Your task to perform on an android device: toggle javascript in the chrome app Image 0: 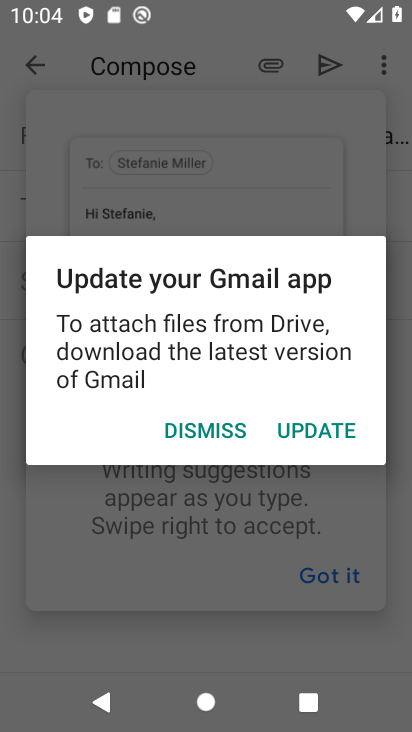
Step 0: press home button
Your task to perform on an android device: toggle javascript in the chrome app Image 1: 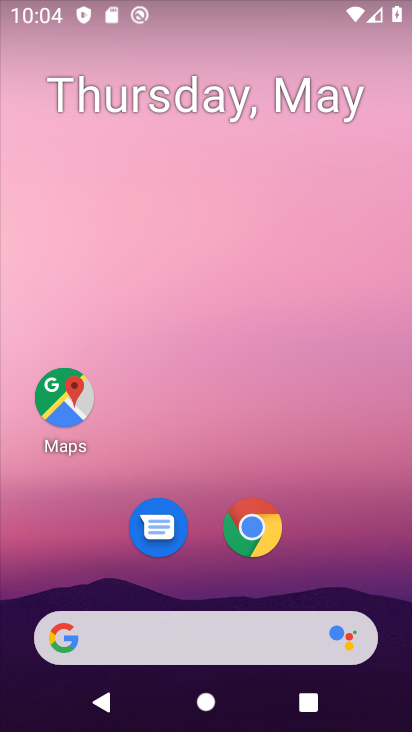
Step 1: click (244, 526)
Your task to perform on an android device: toggle javascript in the chrome app Image 2: 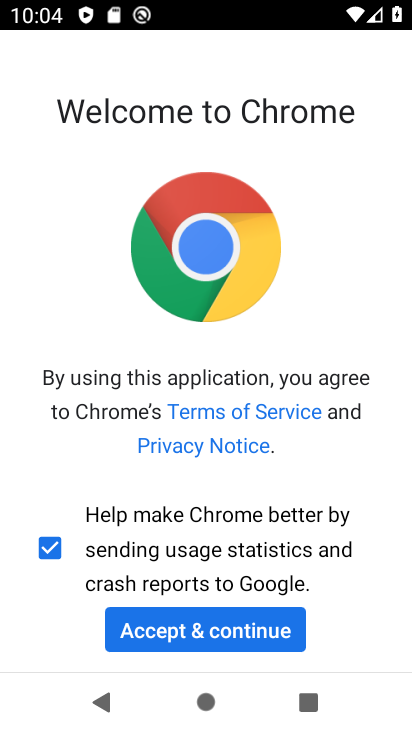
Step 2: click (219, 646)
Your task to perform on an android device: toggle javascript in the chrome app Image 3: 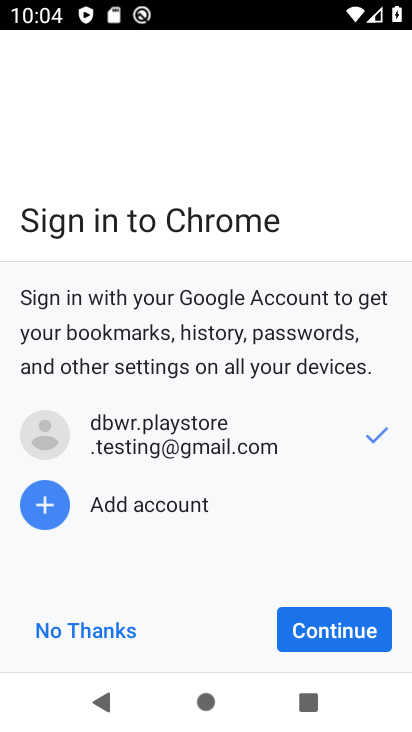
Step 3: click (324, 629)
Your task to perform on an android device: toggle javascript in the chrome app Image 4: 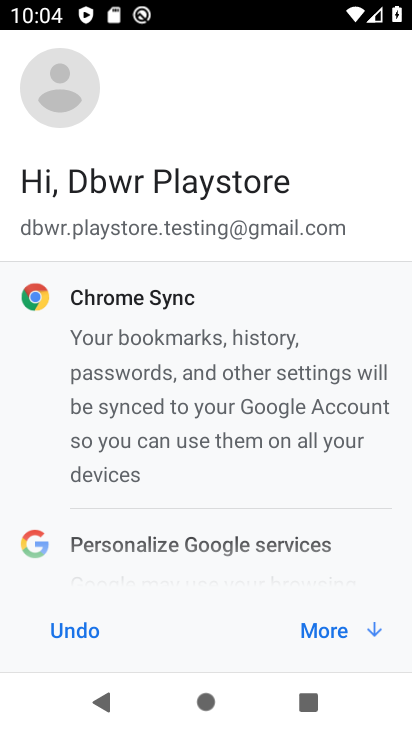
Step 4: click (335, 629)
Your task to perform on an android device: toggle javascript in the chrome app Image 5: 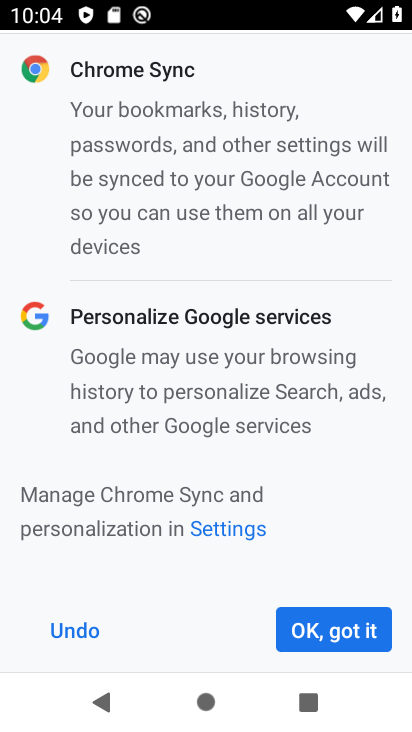
Step 5: click (351, 630)
Your task to perform on an android device: toggle javascript in the chrome app Image 6: 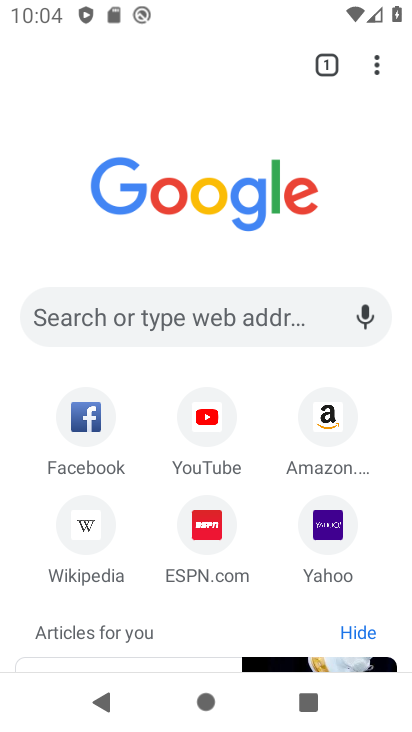
Step 6: click (374, 64)
Your task to perform on an android device: toggle javascript in the chrome app Image 7: 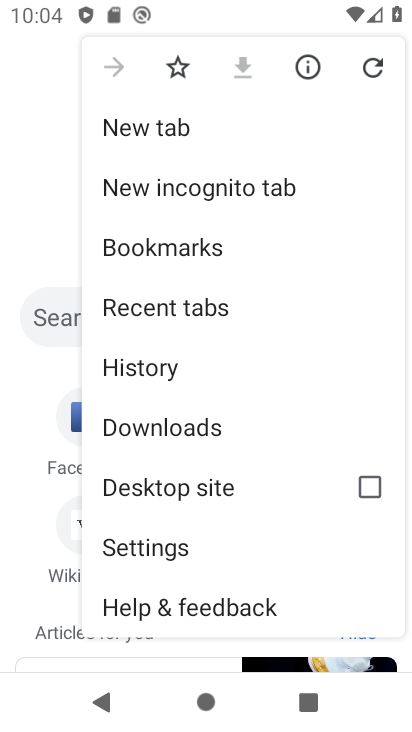
Step 7: click (150, 547)
Your task to perform on an android device: toggle javascript in the chrome app Image 8: 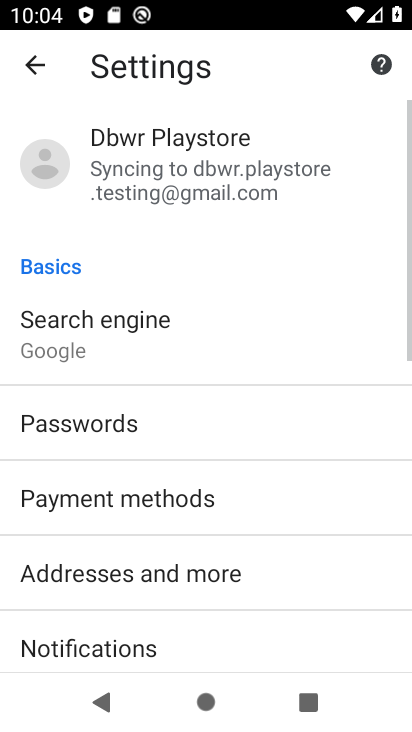
Step 8: drag from (264, 552) to (210, 166)
Your task to perform on an android device: toggle javascript in the chrome app Image 9: 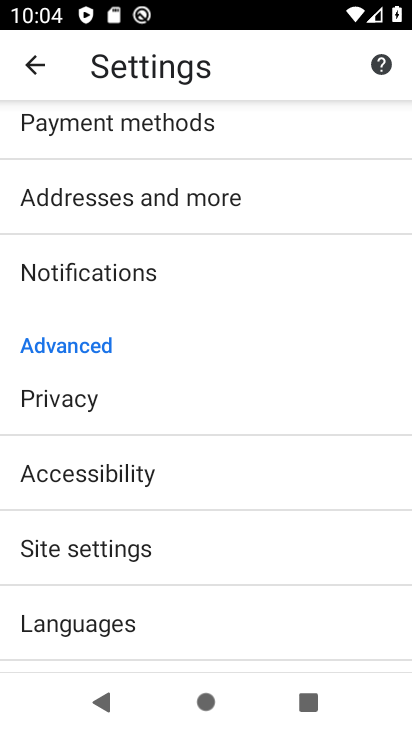
Step 9: drag from (195, 578) to (183, 304)
Your task to perform on an android device: toggle javascript in the chrome app Image 10: 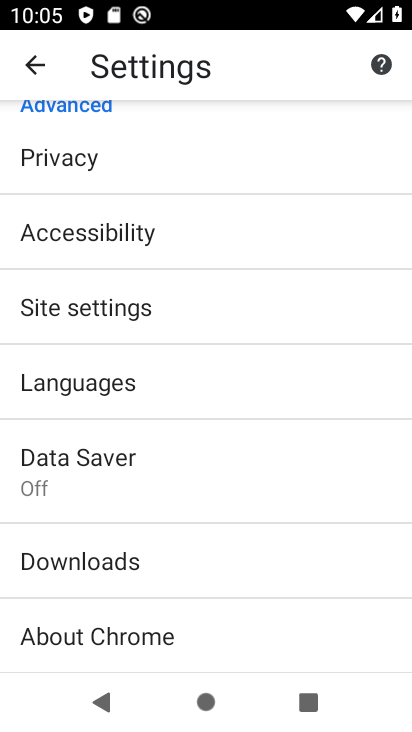
Step 10: drag from (214, 519) to (154, 256)
Your task to perform on an android device: toggle javascript in the chrome app Image 11: 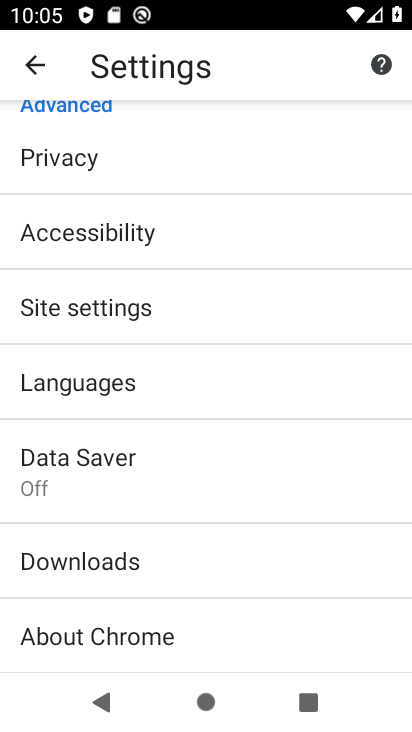
Step 11: drag from (220, 569) to (211, 376)
Your task to perform on an android device: toggle javascript in the chrome app Image 12: 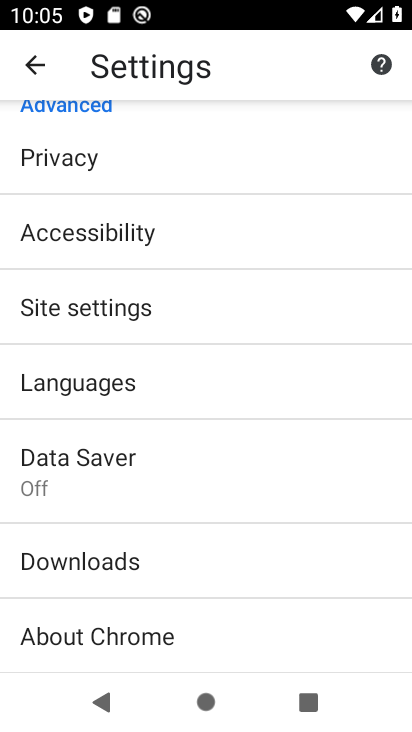
Step 12: click (116, 295)
Your task to perform on an android device: toggle javascript in the chrome app Image 13: 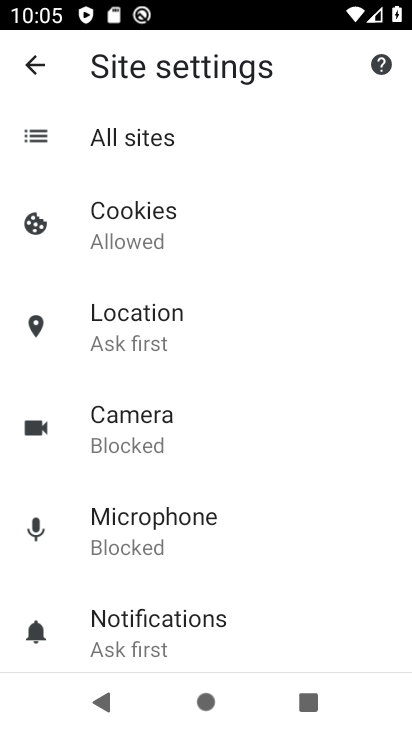
Step 13: drag from (283, 516) to (241, 360)
Your task to perform on an android device: toggle javascript in the chrome app Image 14: 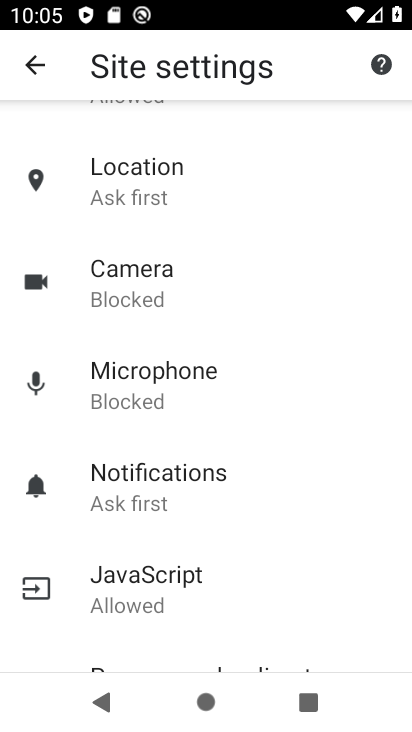
Step 14: click (160, 566)
Your task to perform on an android device: toggle javascript in the chrome app Image 15: 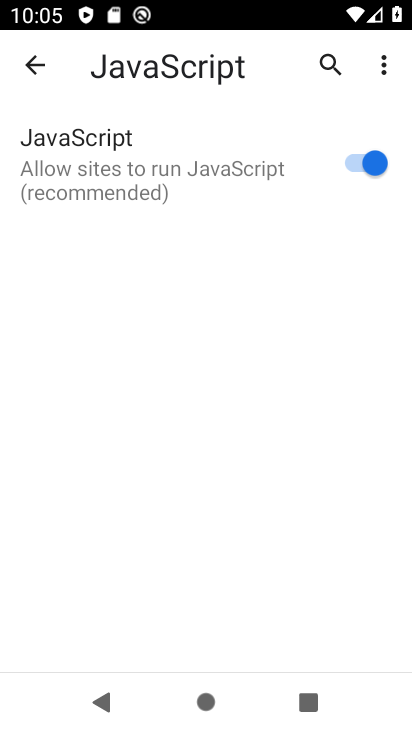
Step 15: click (375, 163)
Your task to perform on an android device: toggle javascript in the chrome app Image 16: 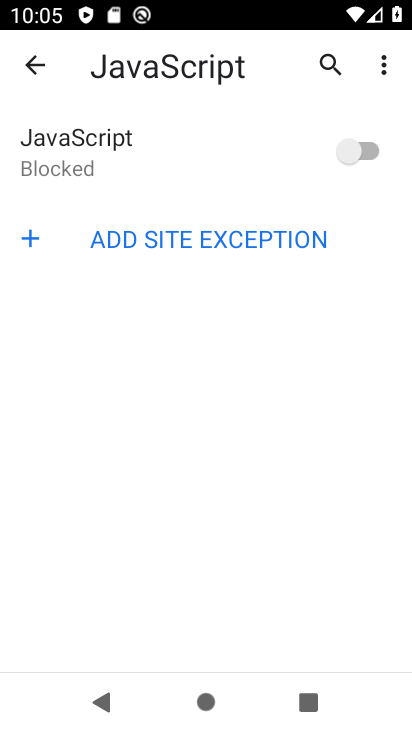
Step 16: task complete